Your task to perform on an android device: What's on my calendar today? Image 0: 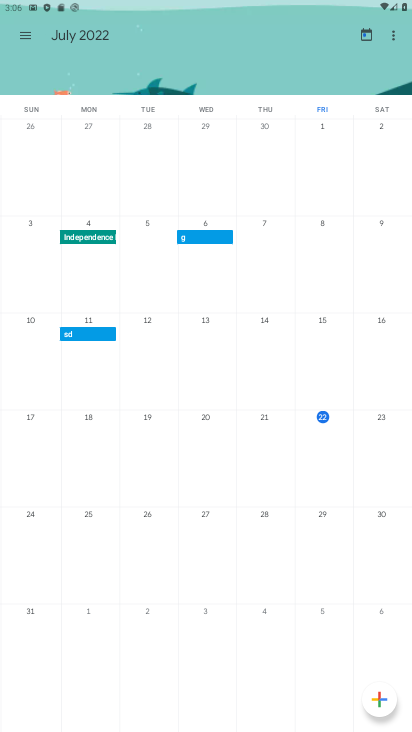
Step 0: task complete